Your task to perform on an android device: Go to Reddit.com Image 0: 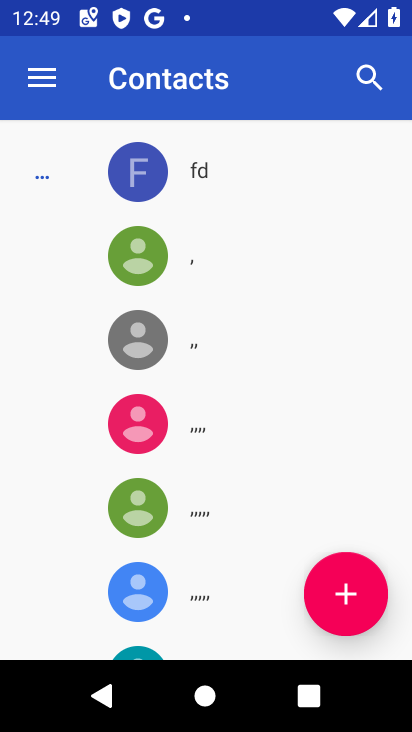
Step 0: press home button
Your task to perform on an android device: Go to Reddit.com Image 1: 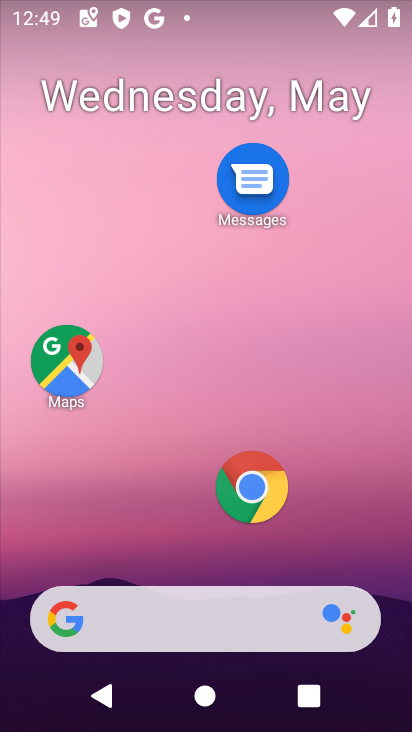
Step 1: click (238, 478)
Your task to perform on an android device: Go to Reddit.com Image 2: 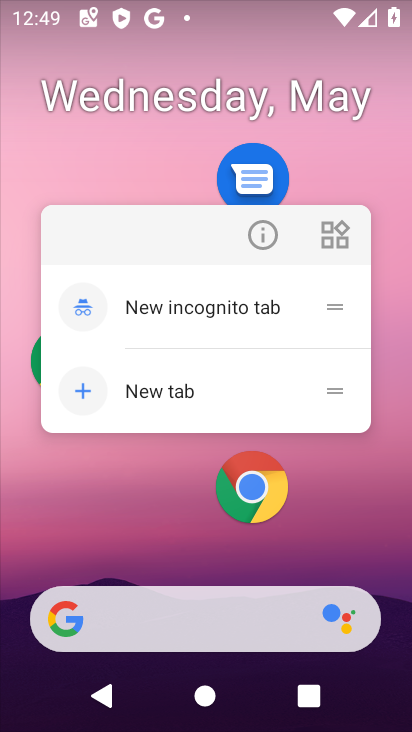
Step 2: click (283, 488)
Your task to perform on an android device: Go to Reddit.com Image 3: 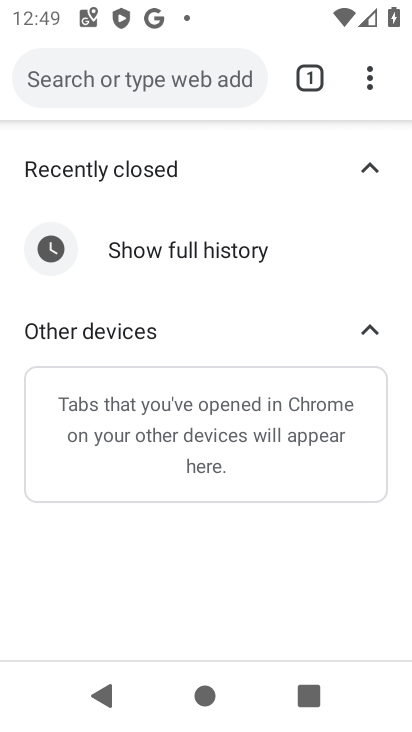
Step 3: click (132, 68)
Your task to perform on an android device: Go to Reddit.com Image 4: 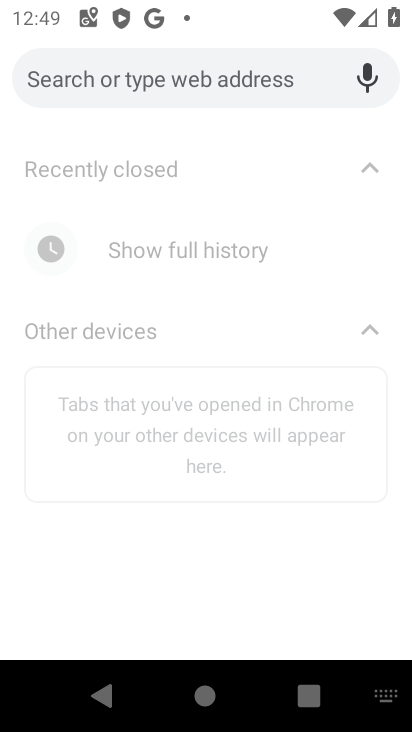
Step 4: type "Reddit.com"
Your task to perform on an android device: Go to Reddit.com Image 5: 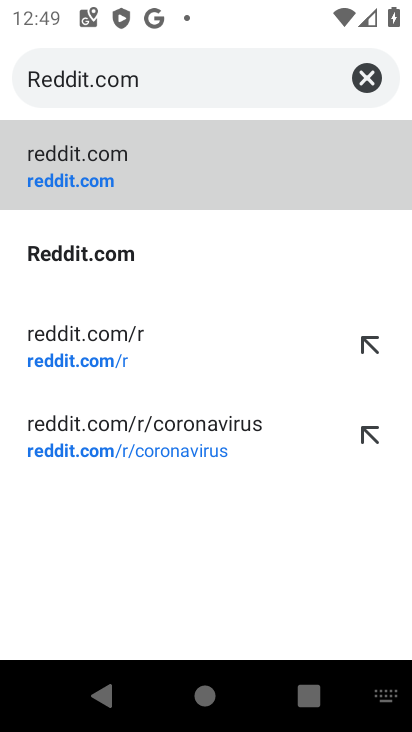
Step 5: click (77, 174)
Your task to perform on an android device: Go to Reddit.com Image 6: 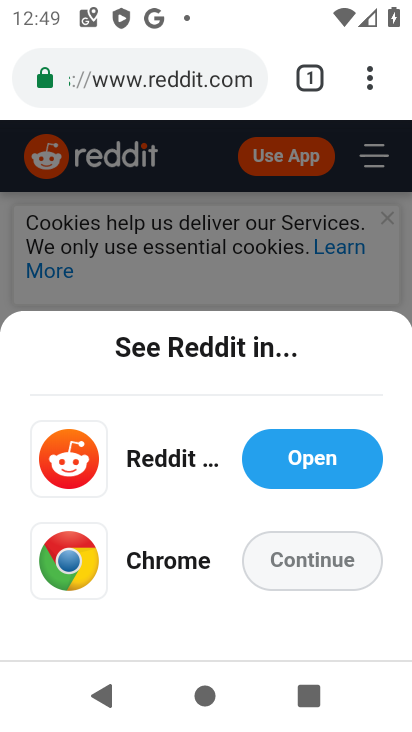
Step 6: task complete